Your task to perform on an android device: delete location history Image 0: 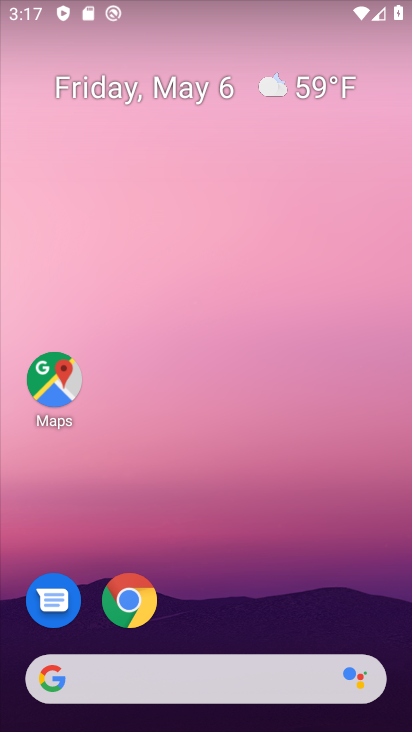
Step 0: drag from (230, 607) to (396, 3)
Your task to perform on an android device: delete location history Image 1: 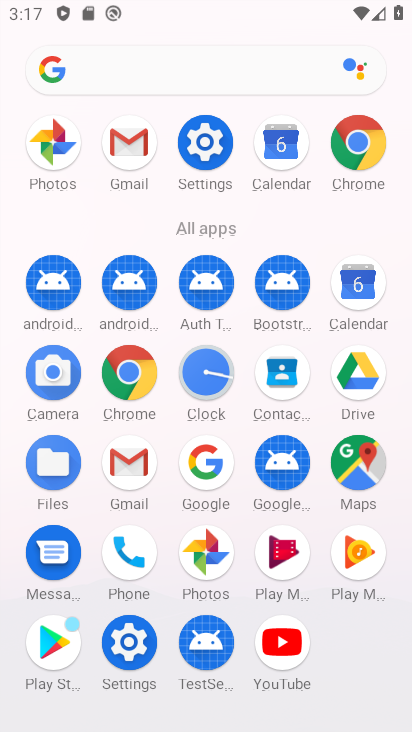
Step 1: click (351, 481)
Your task to perform on an android device: delete location history Image 2: 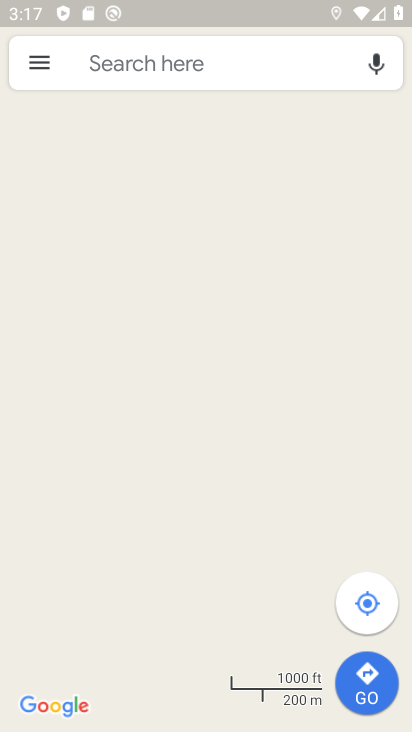
Step 2: click (37, 68)
Your task to perform on an android device: delete location history Image 3: 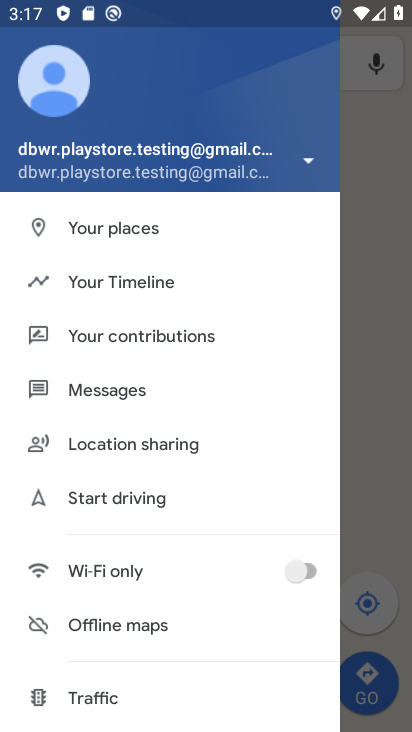
Step 3: click (110, 300)
Your task to perform on an android device: delete location history Image 4: 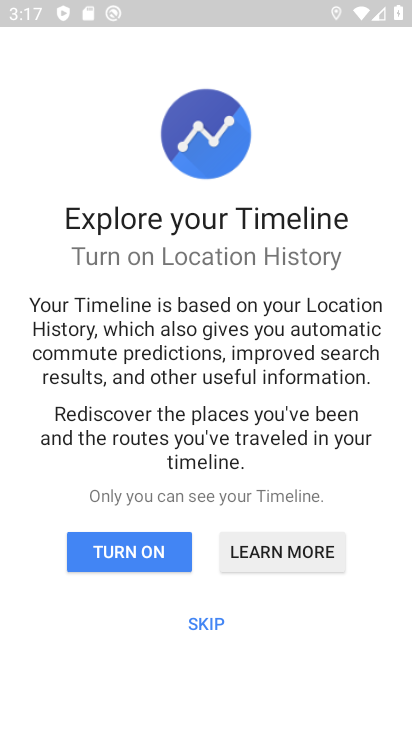
Step 4: click (221, 616)
Your task to perform on an android device: delete location history Image 5: 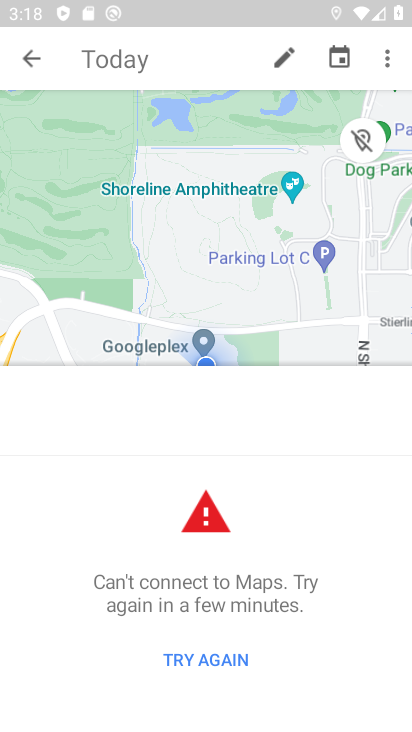
Step 5: click (386, 55)
Your task to perform on an android device: delete location history Image 6: 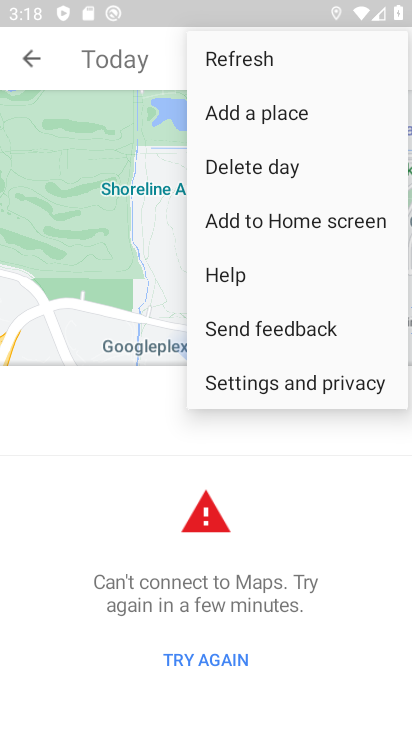
Step 6: click (252, 386)
Your task to perform on an android device: delete location history Image 7: 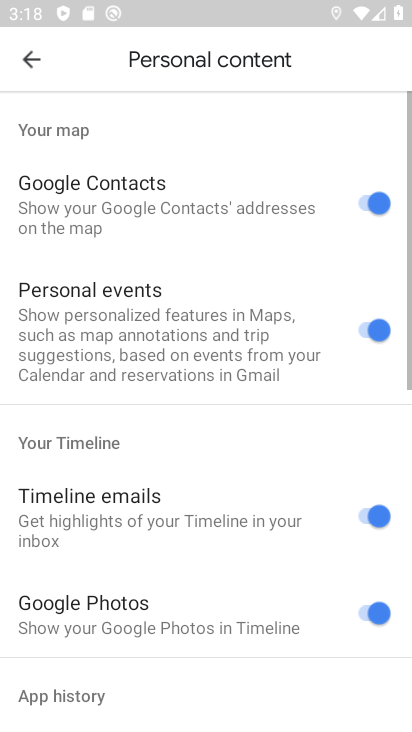
Step 7: drag from (163, 455) to (228, 32)
Your task to perform on an android device: delete location history Image 8: 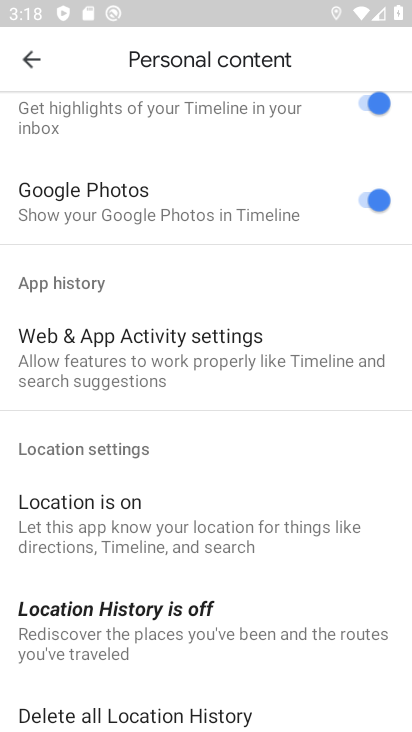
Step 8: drag from (207, 521) to (220, 163)
Your task to perform on an android device: delete location history Image 9: 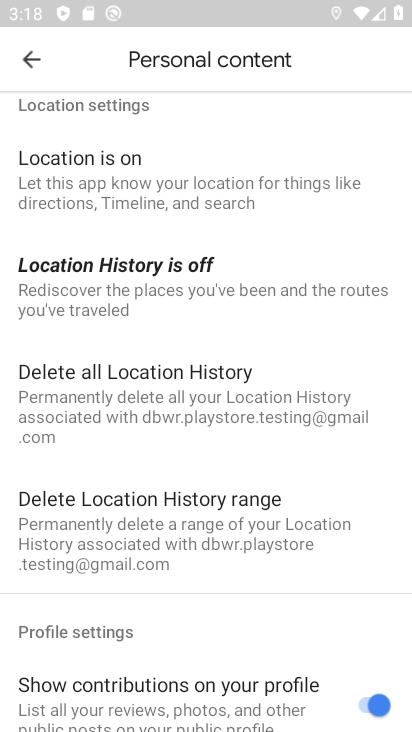
Step 9: click (174, 414)
Your task to perform on an android device: delete location history Image 10: 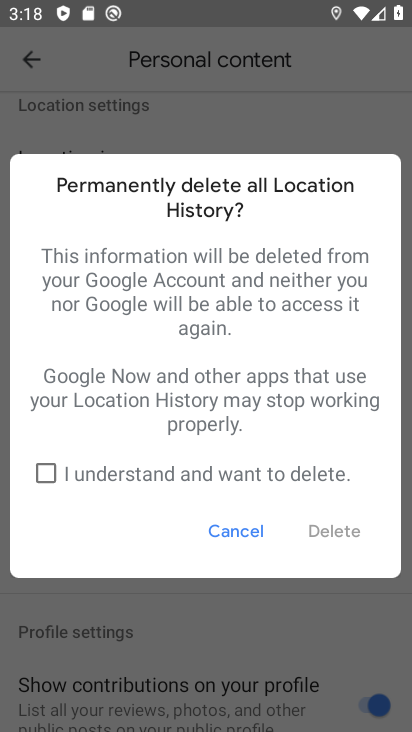
Step 10: click (109, 476)
Your task to perform on an android device: delete location history Image 11: 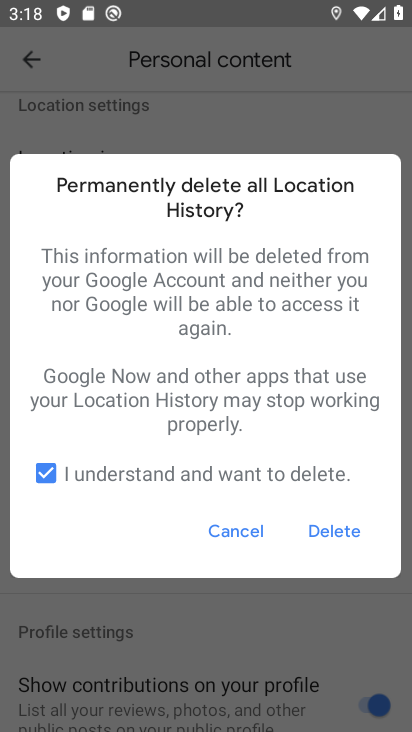
Step 11: click (322, 536)
Your task to perform on an android device: delete location history Image 12: 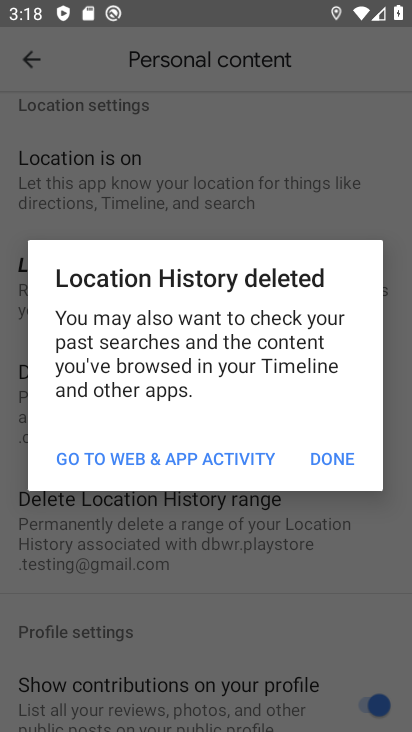
Step 12: click (316, 462)
Your task to perform on an android device: delete location history Image 13: 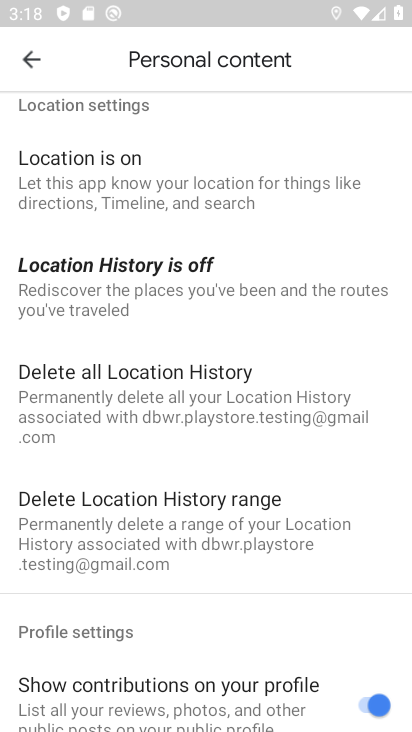
Step 13: task complete